Your task to perform on an android device: see sites visited before in the chrome app Image 0: 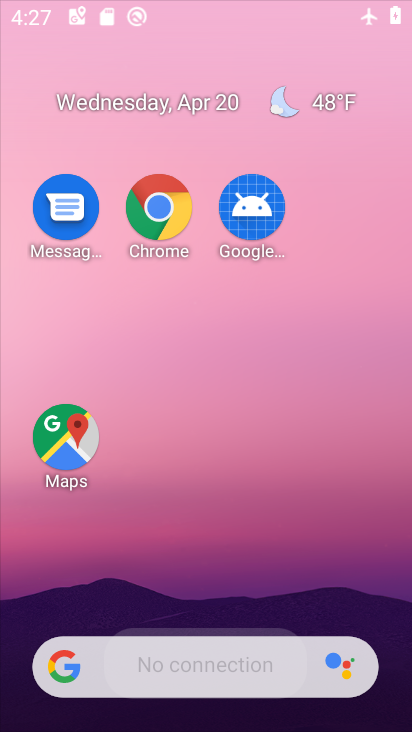
Step 0: drag from (255, 33) to (363, 18)
Your task to perform on an android device: see sites visited before in the chrome app Image 1: 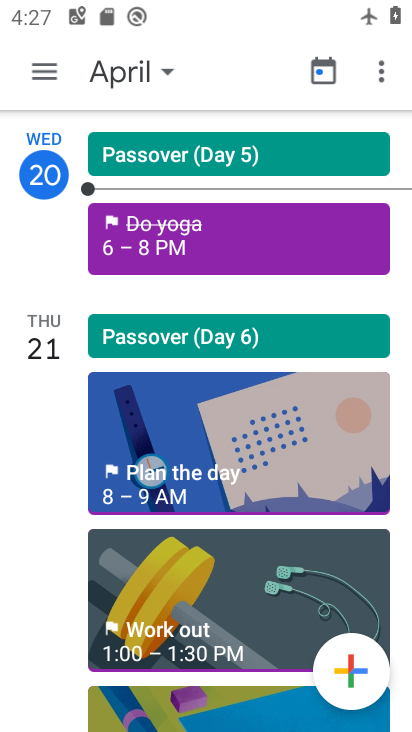
Step 1: press home button
Your task to perform on an android device: see sites visited before in the chrome app Image 2: 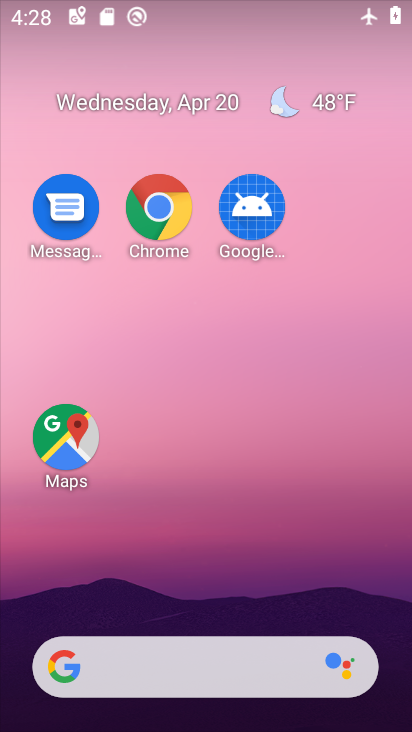
Step 2: drag from (275, 455) to (312, 0)
Your task to perform on an android device: see sites visited before in the chrome app Image 3: 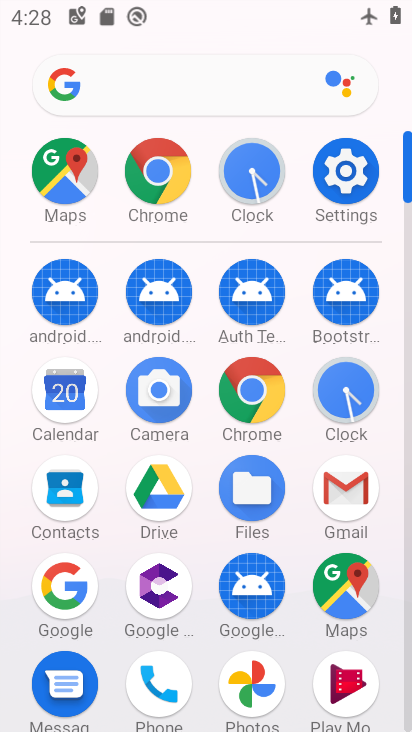
Step 3: click (154, 161)
Your task to perform on an android device: see sites visited before in the chrome app Image 4: 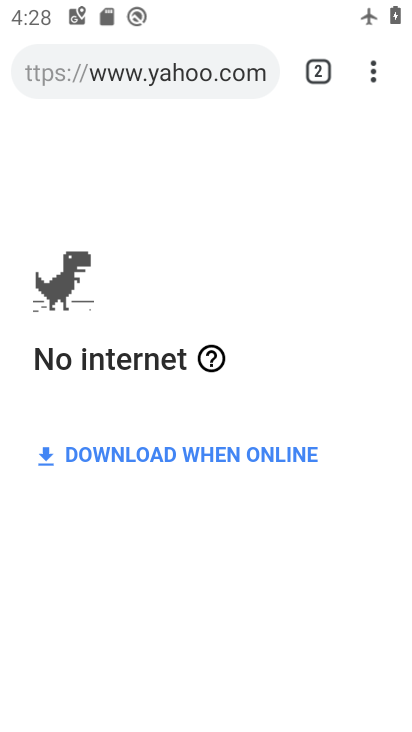
Step 4: click (376, 70)
Your task to perform on an android device: see sites visited before in the chrome app Image 5: 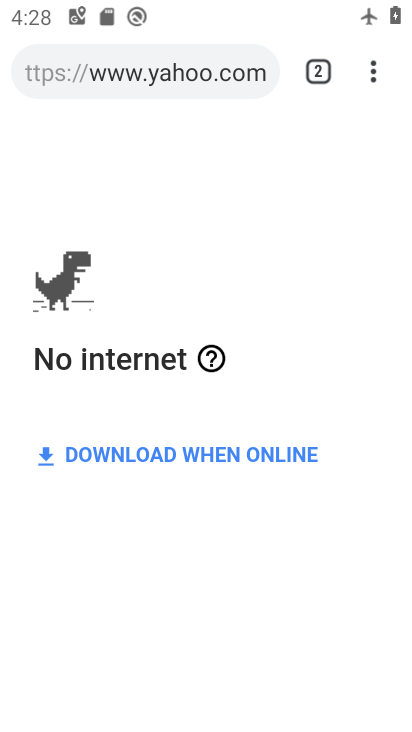
Step 5: click (378, 70)
Your task to perform on an android device: see sites visited before in the chrome app Image 6: 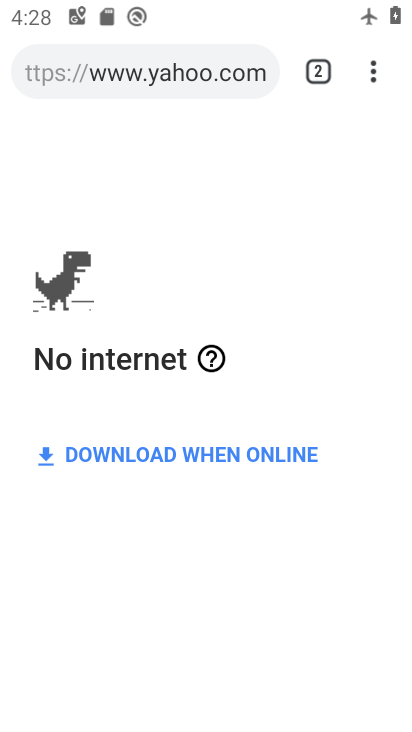
Step 6: click (375, 78)
Your task to perform on an android device: see sites visited before in the chrome app Image 7: 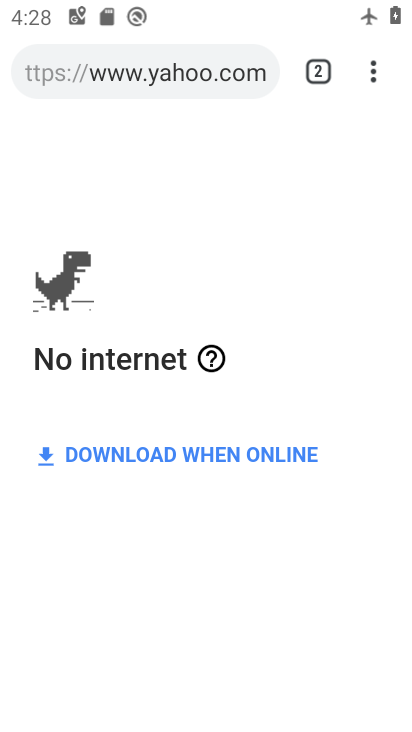
Step 7: click (381, 68)
Your task to perform on an android device: see sites visited before in the chrome app Image 8: 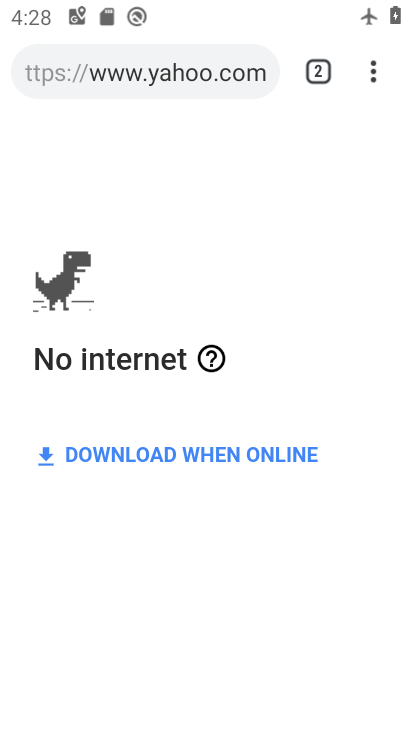
Step 8: click (384, 72)
Your task to perform on an android device: see sites visited before in the chrome app Image 9: 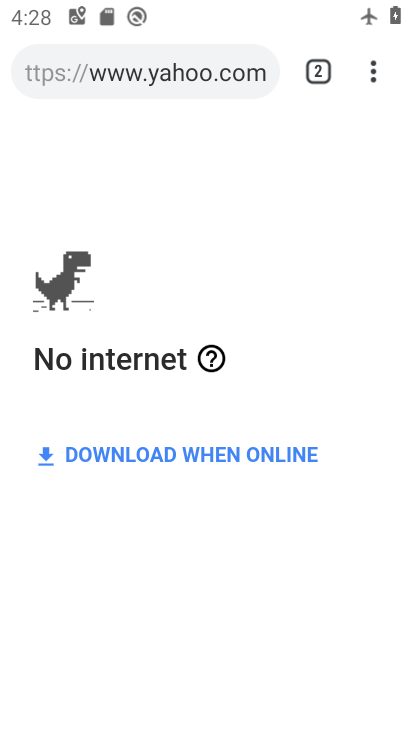
Step 9: task complete